Your task to perform on an android device: stop showing notifications on the lock screen Image 0: 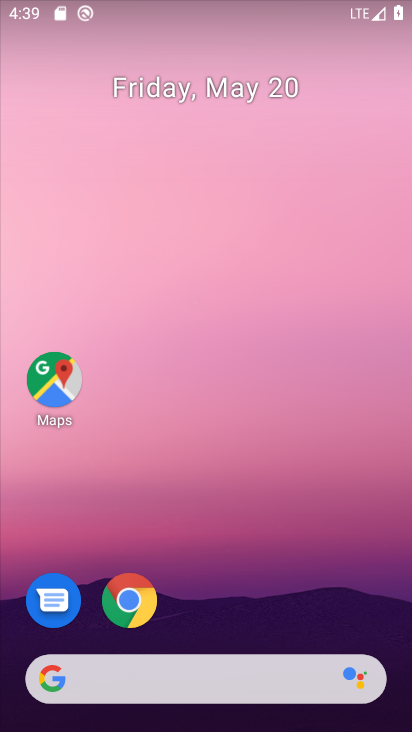
Step 0: drag from (298, 519) to (176, 91)
Your task to perform on an android device: stop showing notifications on the lock screen Image 1: 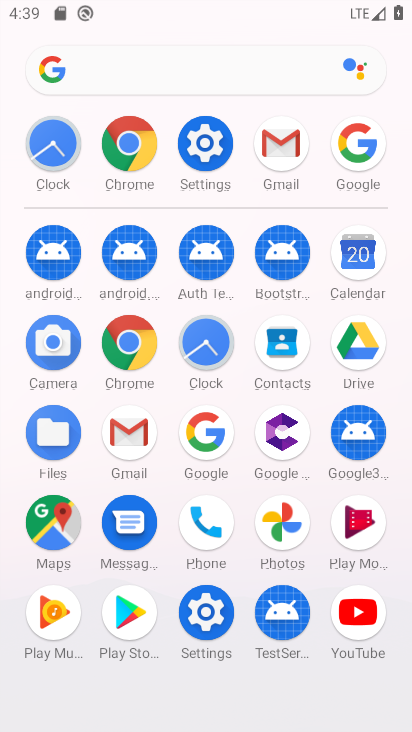
Step 1: click (206, 157)
Your task to perform on an android device: stop showing notifications on the lock screen Image 2: 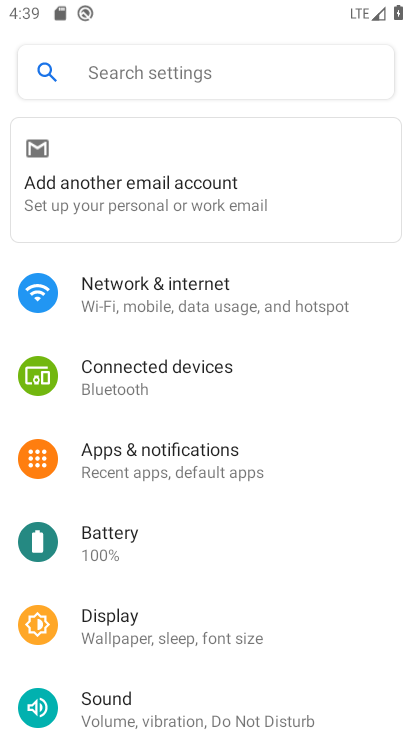
Step 2: click (251, 473)
Your task to perform on an android device: stop showing notifications on the lock screen Image 3: 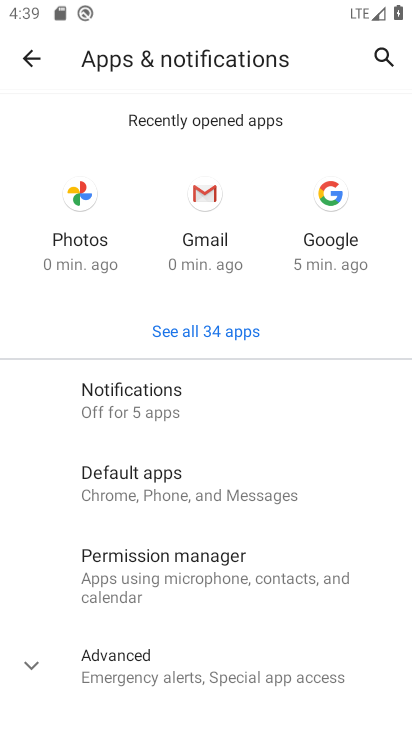
Step 3: click (223, 424)
Your task to perform on an android device: stop showing notifications on the lock screen Image 4: 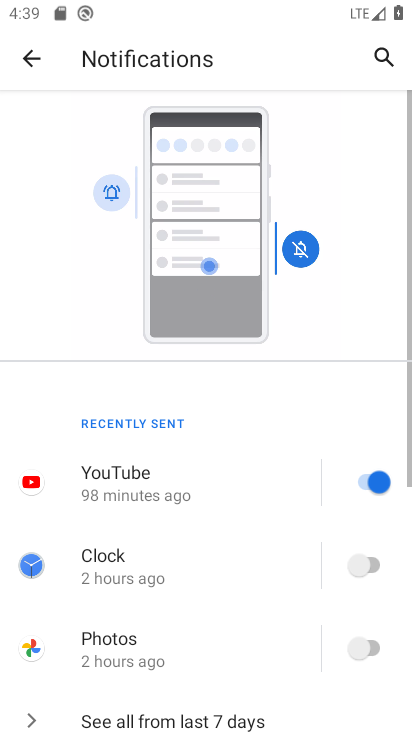
Step 4: drag from (259, 656) to (259, 163)
Your task to perform on an android device: stop showing notifications on the lock screen Image 5: 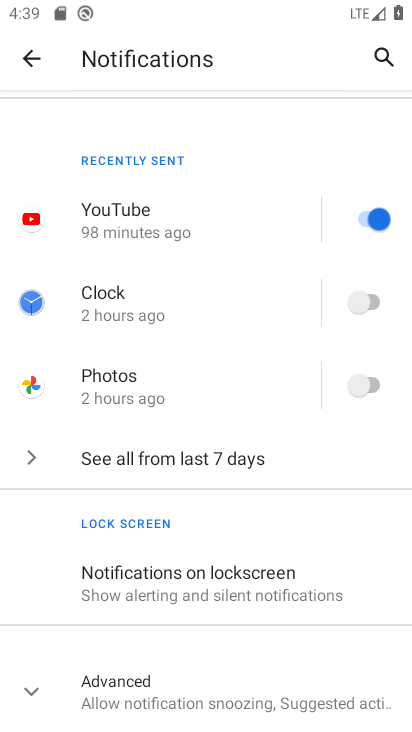
Step 5: click (285, 576)
Your task to perform on an android device: stop showing notifications on the lock screen Image 6: 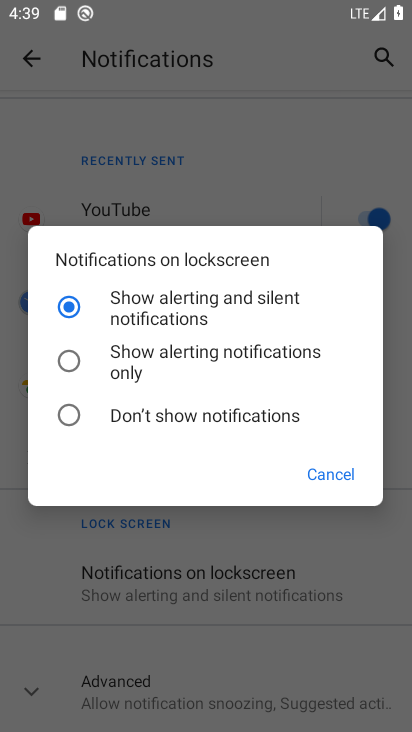
Step 6: click (188, 425)
Your task to perform on an android device: stop showing notifications on the lock screen Image 7: 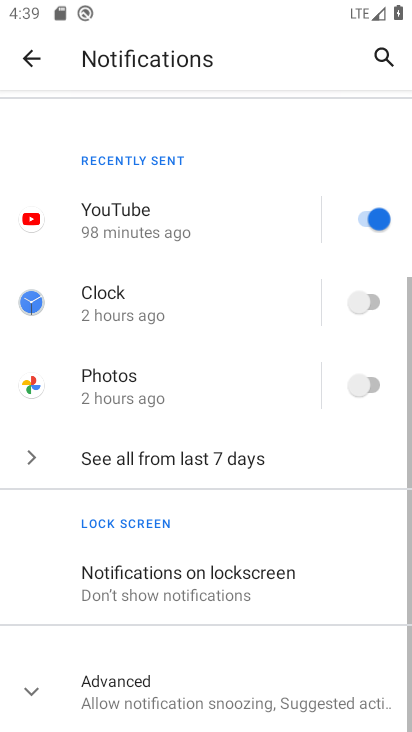
Step 7: task complete